Your task to perform on an android device: Open Chrome and go to settings Image 0: 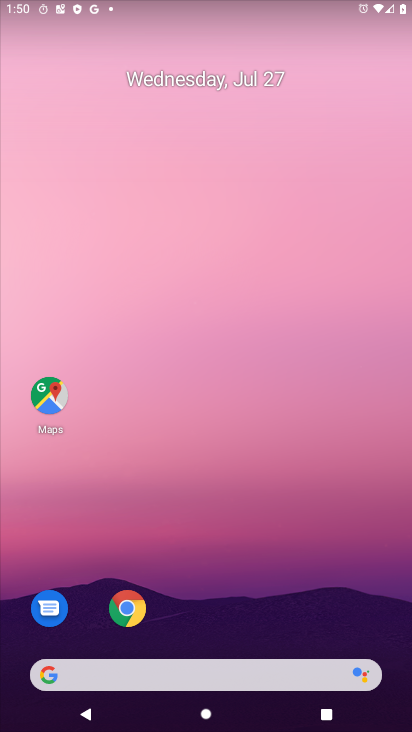
Step 0: click (131, 617)
Your task to perform on an android device: Open Chrome and go to settings Image 1: 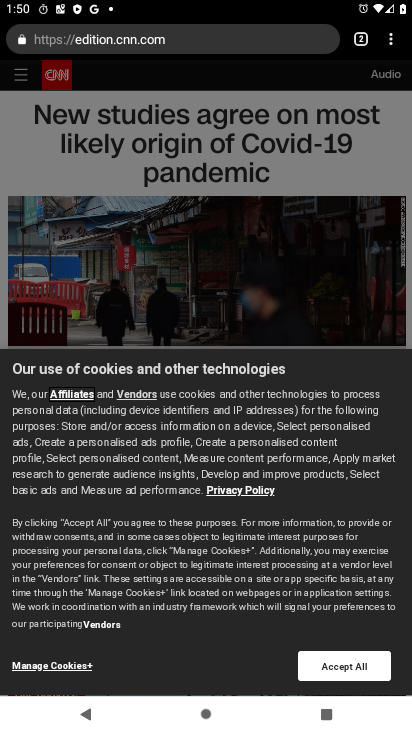
Step 1: click (391, 47)
Your task to perform on an android device: Open Chrome and go to settings Image 2: 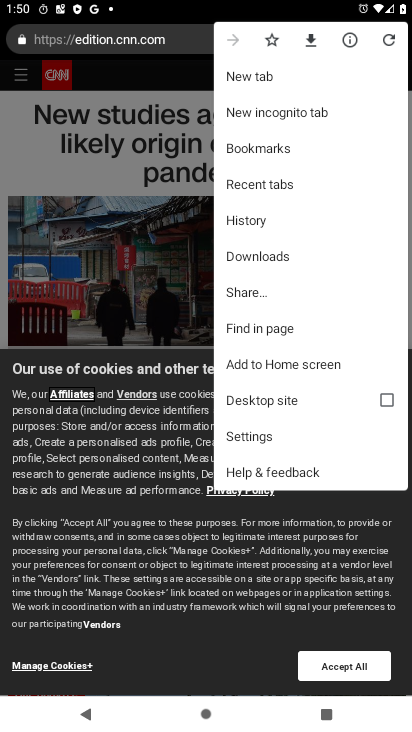
Step 2: click (243, 434)
Your task to perform on an android device: Open Chrome and go to settings Image 3: 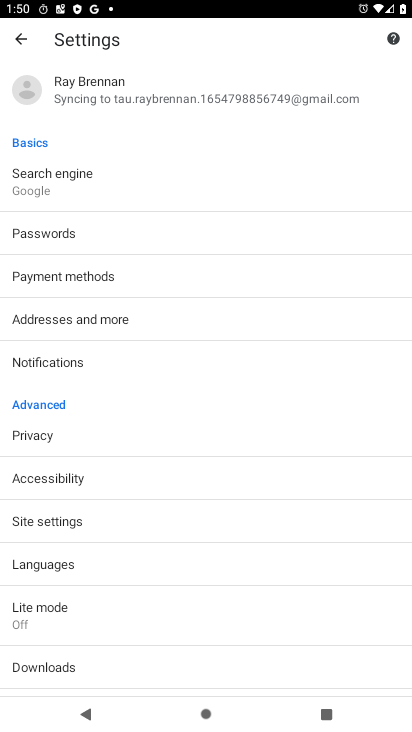
Step 3: task complete